Your task to perform on an android device: see tabs open on other devices in the chrome app Image 0: 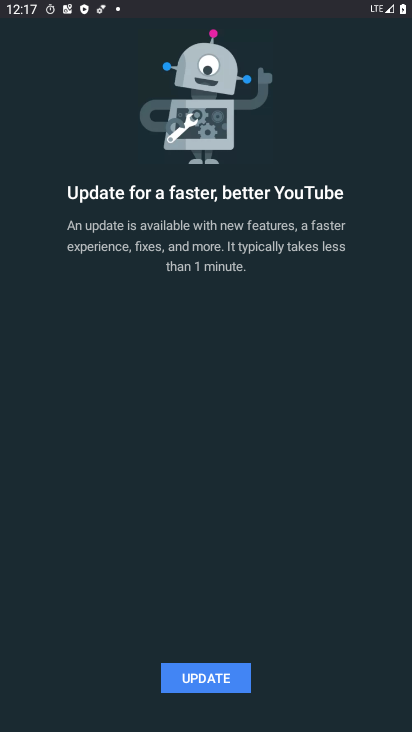
Step 0: press home button
Your task to perform on an android device: see tabs open on other devices in the chrome app Image 1: 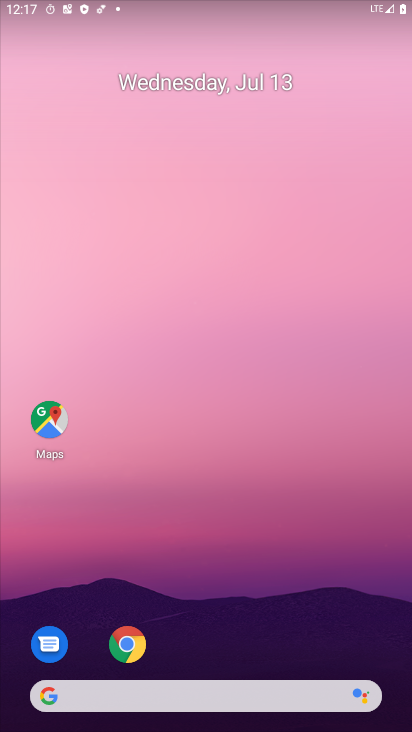
Step 1: click (130, 645)
Your task to perform on an android device: see tabs open on other devices in the chrome app Image 2: 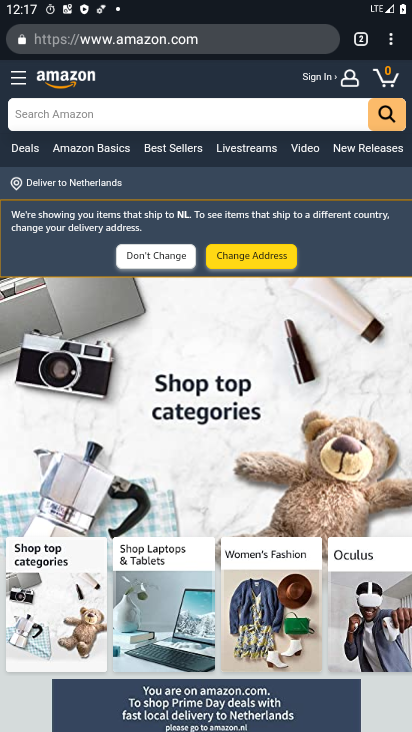
Step 2: click (386, 43)
Your task to perform on an android device: see tabs open on other devices in the chrome app Image 3: 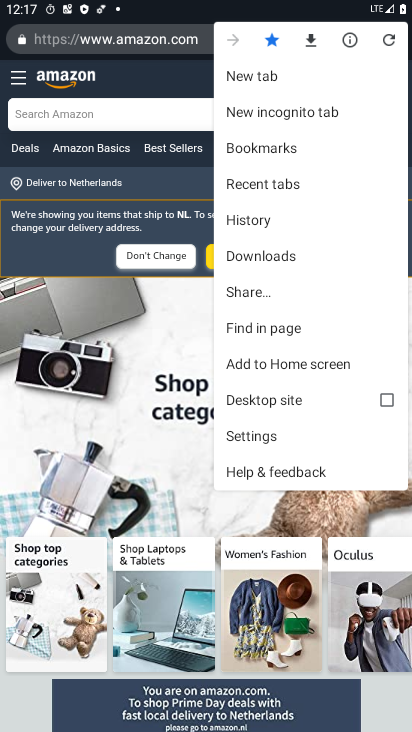
Step 3: click (173, 70)
Your task to perform on an android device: see tabs open on other devices in the chrome app Image 4: 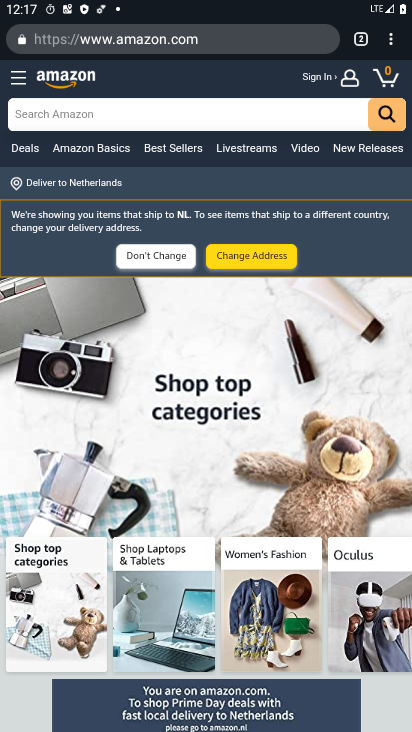
Step 4: click (363, 40)
Your task to perform on an android device: see tabs open on other devices in the chrome app Image 5: 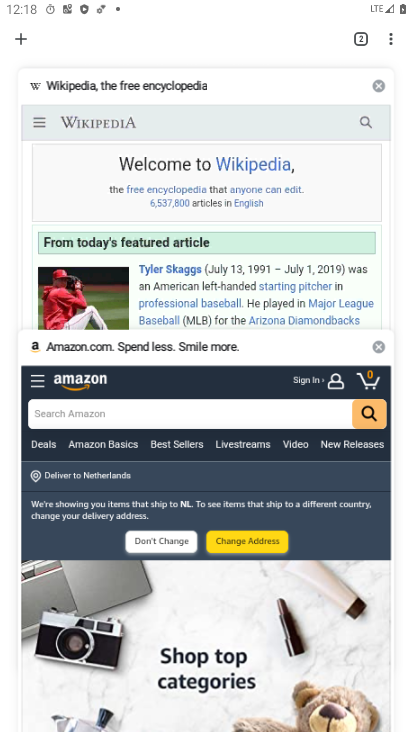
Step 5: task complete